Your task to perform on an android device: Open sound settings Image 0: 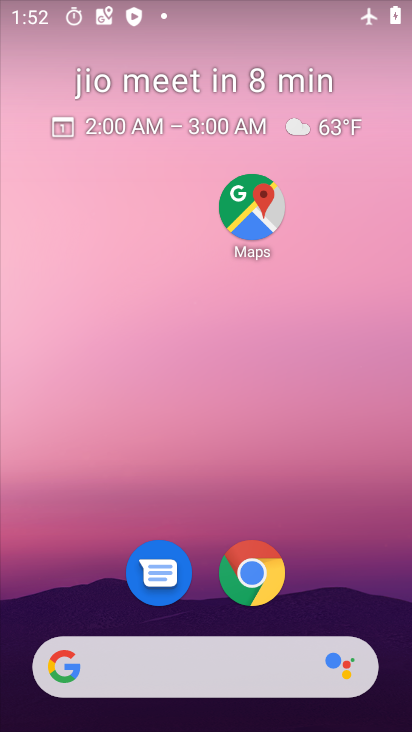
Step 0: drag from (131, 514) to (227, 6)
Your task to perform on an android device: Open sound settings Image 1: 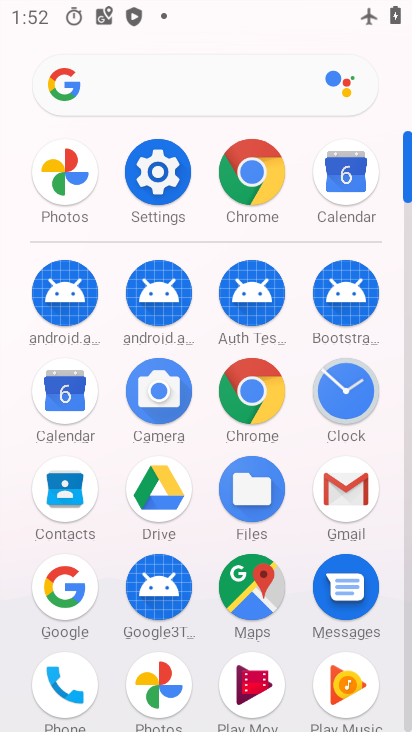
Step 1: drag from (205, 238) to (206, 1)
Your task to perform on an android device: Open sound settings Image 2: 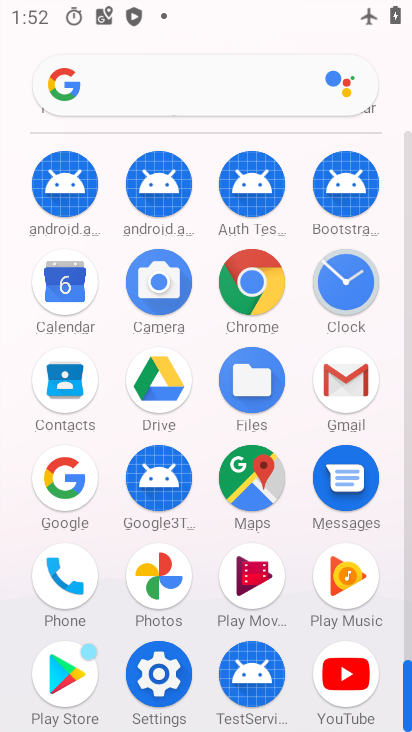
Step 2: click (159, 679)
Your task to perform on an android device: Open sound settings Image 3: 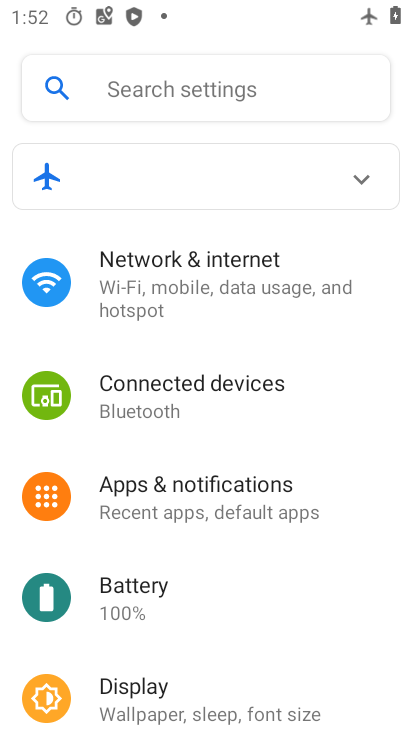
Step 3: drag from (170, 568) to (129, 284)
Your task to perform on an android device: Open sound settings Image 4: 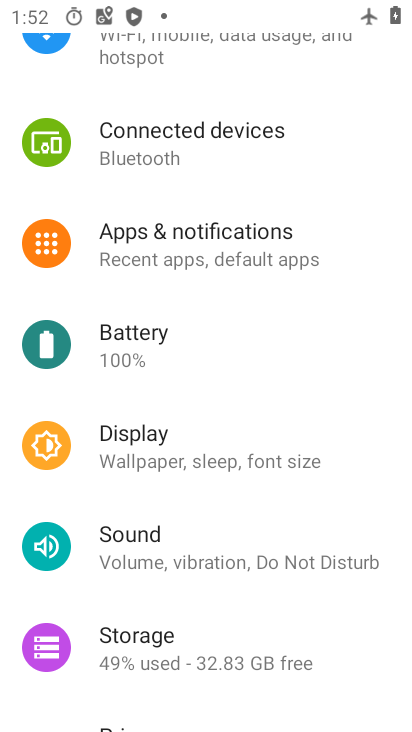
Step 4: drag from (176, 613) to (146, 391)
Your task to perform on an android device: Open sound settings Image 5: 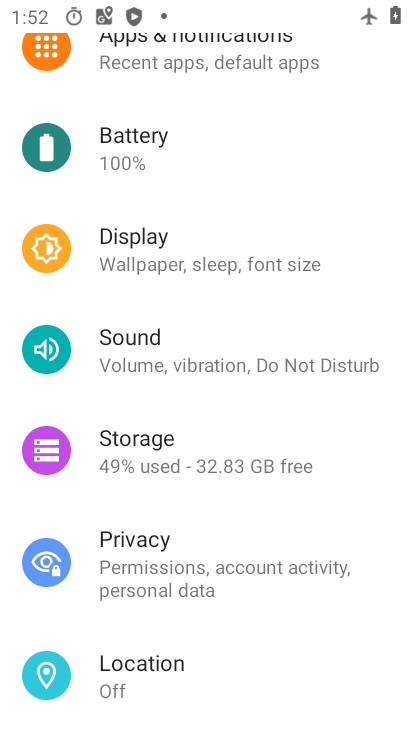
Step 5: drag from (161, 596) to (152, 522)
Your task to perform on an android device: Open sound settings Image 6: 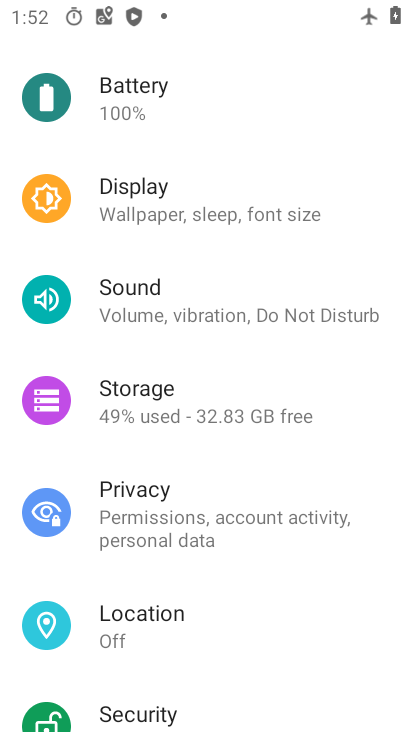
Step 6: click (178, 309)
Your task to perform on an android device: Open sound settings Image 7: 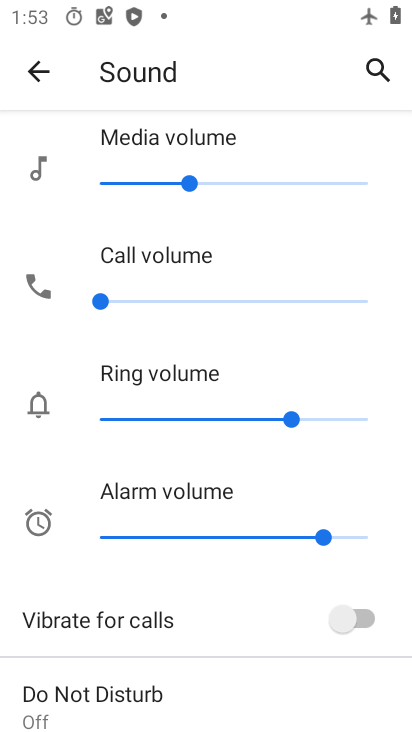
Step 7: task complete